Your task to perform on an android device: move a message to another label in the gmail app Image 0: 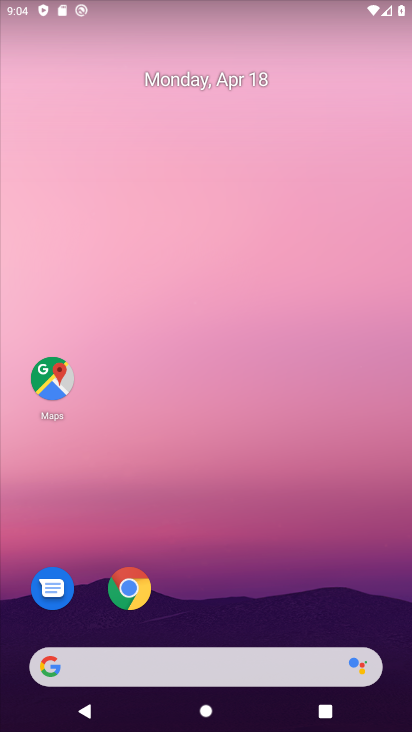
Step 0: drag from (329, 535) to (362, 52)
Your task to perform on an android device: move a message to another label in the gmail app Image 1: 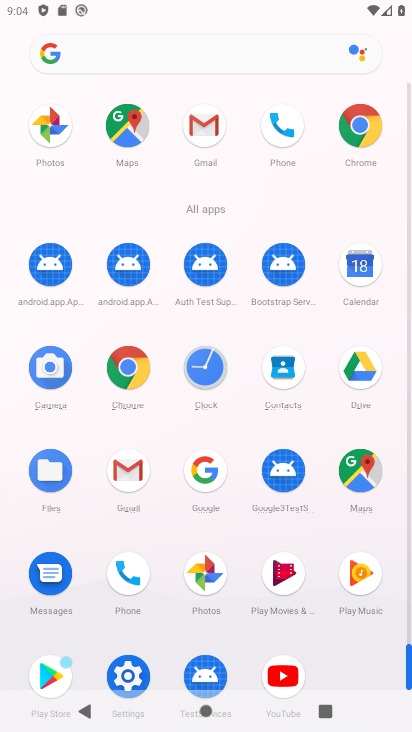
Step 1: click (208, 122)
Your task to perform on an android device: move a message to another label in the gmail app Image 2: 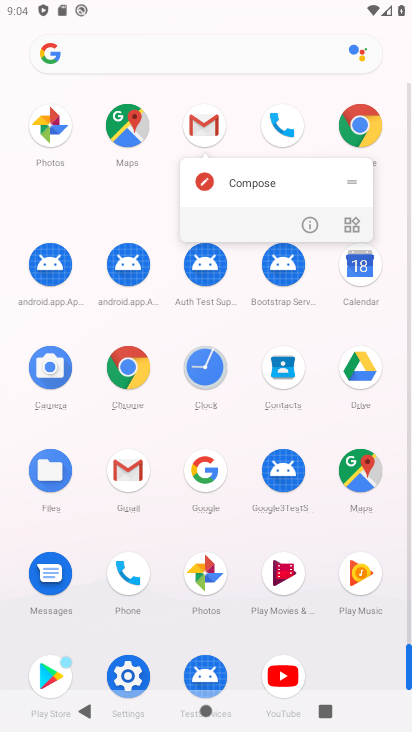
Step 2: click (163, 490)
Your task to perform on an android device: move a message to another label in the gmail app Image 3: 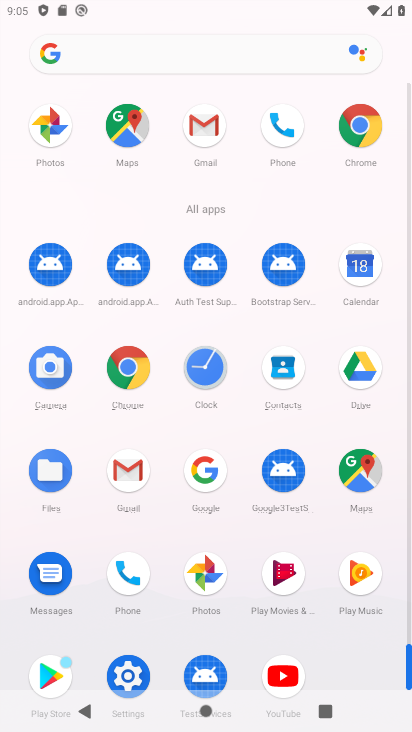
Step 3: click (123, 461)
Your task to perform on an android device: move a message to another label in the gmail app Image 4: 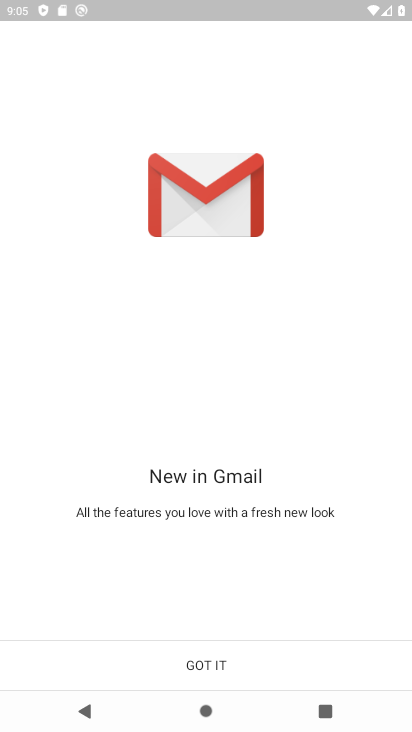
Step 4: click (222, 659)
Your task to perform on an android device: move a message to another label in the gmail app Image 5: 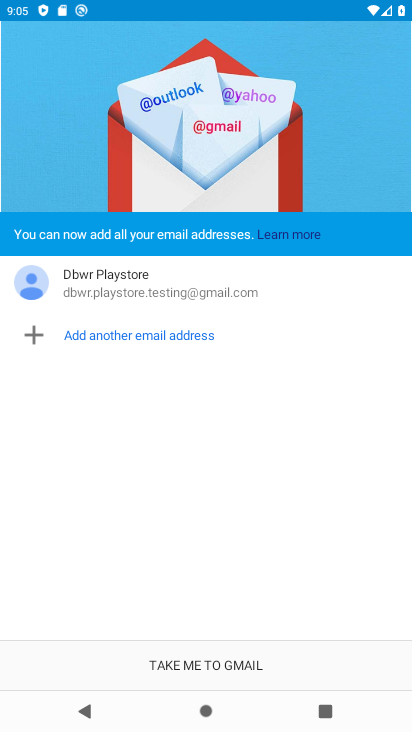
Step 5: click (222, 659)
Your task to perform on an android device: move a message to another label in the gmail app Image 6: 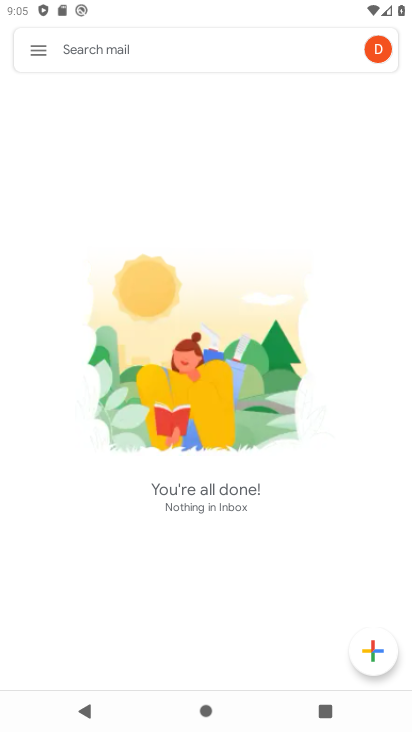
Step 6: task complete